Your task to perform on an android device: turn on location history Image 0: 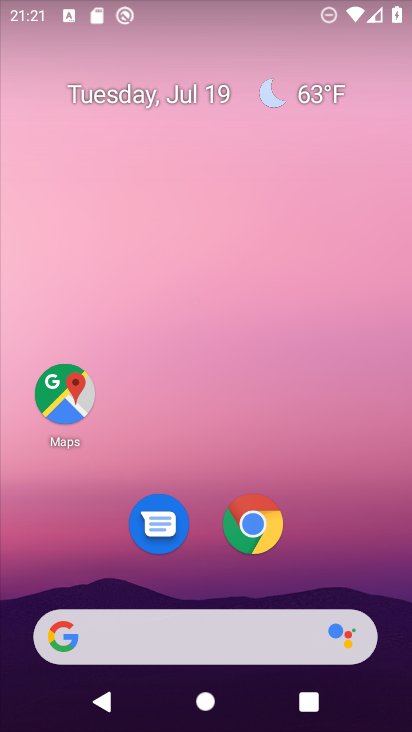
Step 0: drag from (284, 448) to (328, 28)
Your task to perform on an android device: turn on location history Image 1: 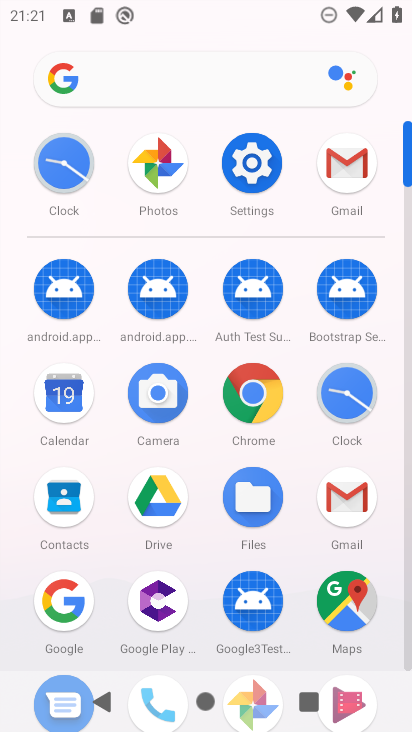
Step 1: click (244, 156)
Your task to perform on an android device: turn on location history Image 2: 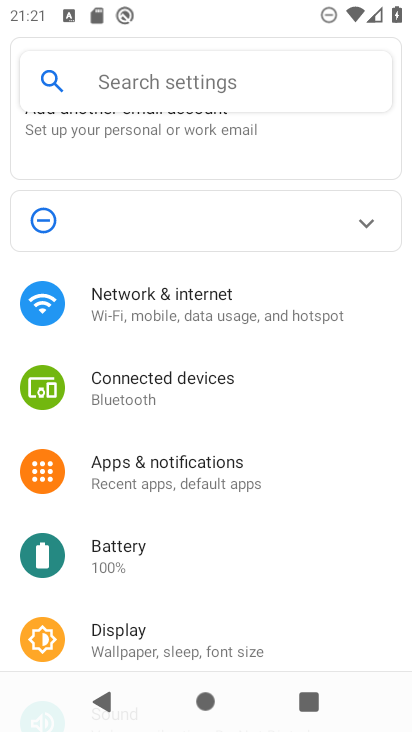
Step 2: drag from (218, 552) to (216, 42)
Your task to perform on an android device: turn on location history Image 3: 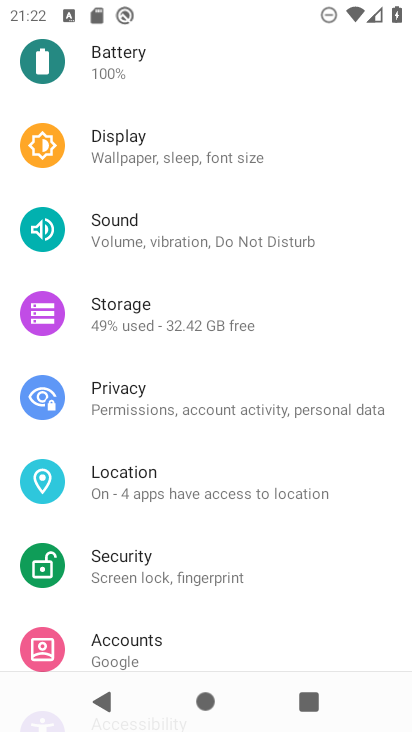
Step 3: click (210, 498)
Your task to perform on an android device: turn on location history Image 4: 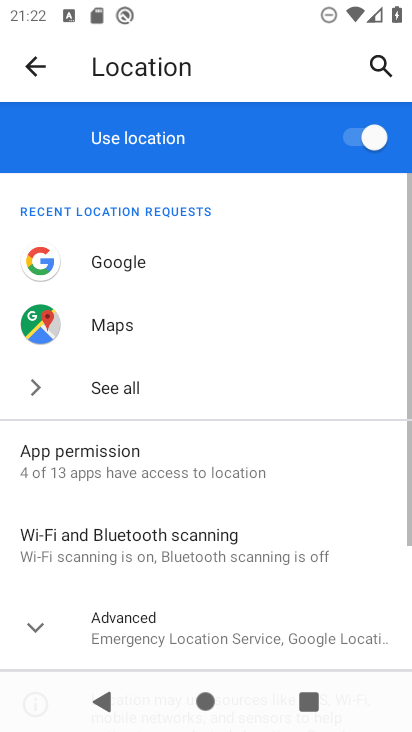
Step 4: click (32, 628)
Your task to perform on an android device: turn on location history Image 5: 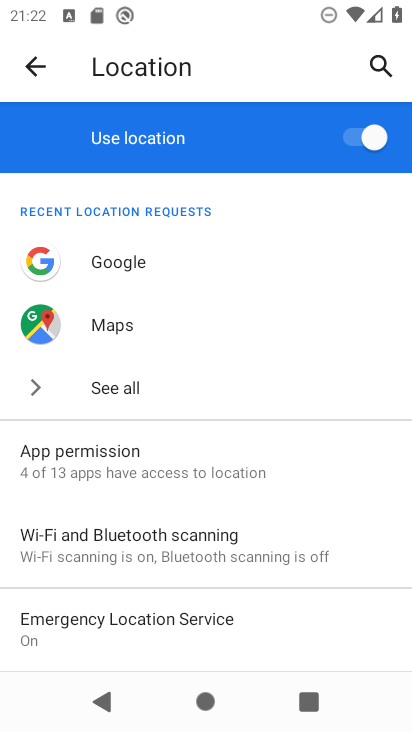
Step 5: task complete